Your task to perform on an android device: find which apps use the phone's location Image 0: 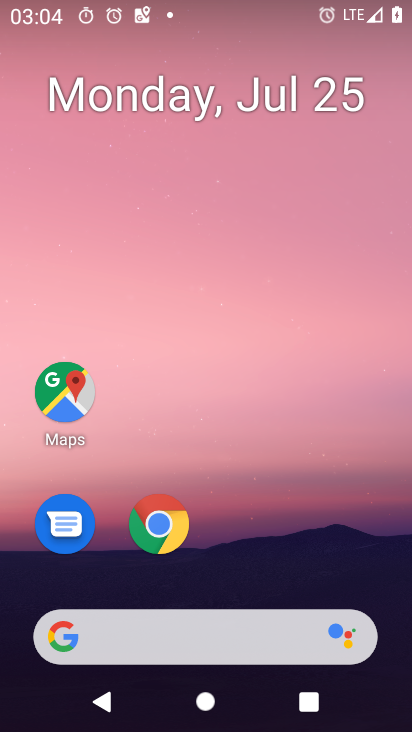
Step 0: press home button
Your task to perform on an android device: find which apps use the phone's location Image 1: 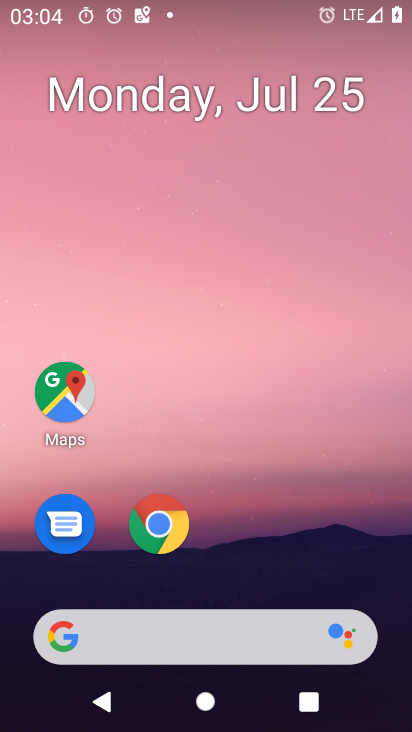
Step 1: drag from (234, 555) to (230, 0)
Your task to perform on an android device: find which apps use the phone's location Image 2: 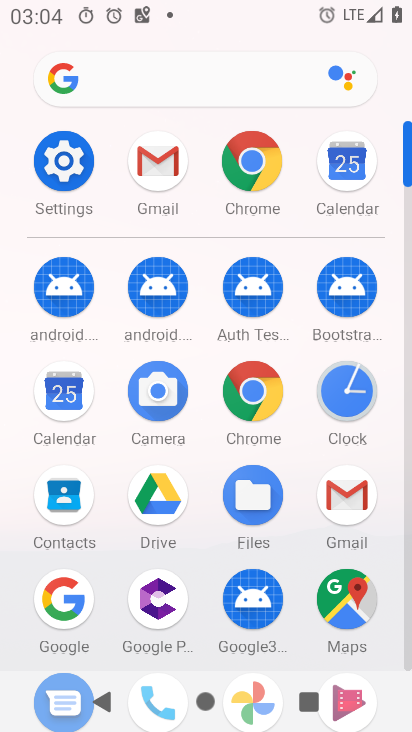
Step 2: click (72, 172)
Your task to perform on an android device: find which apps use the phone's location Image 3: 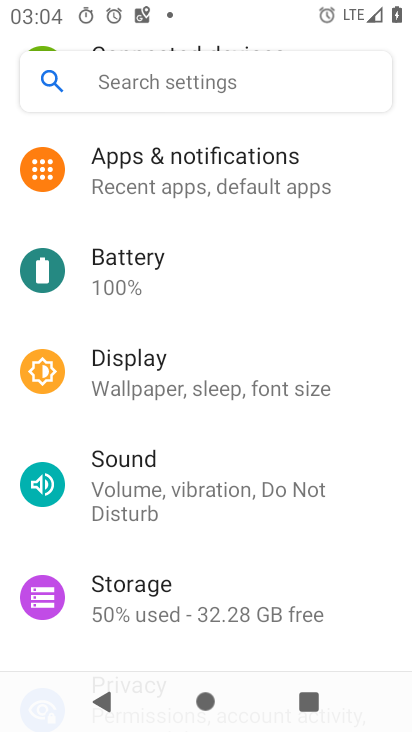
Step 3: drag from (283, 449) to (304, 47)
Your task to perform on an android device: find which apps use the phone's location Image 4: 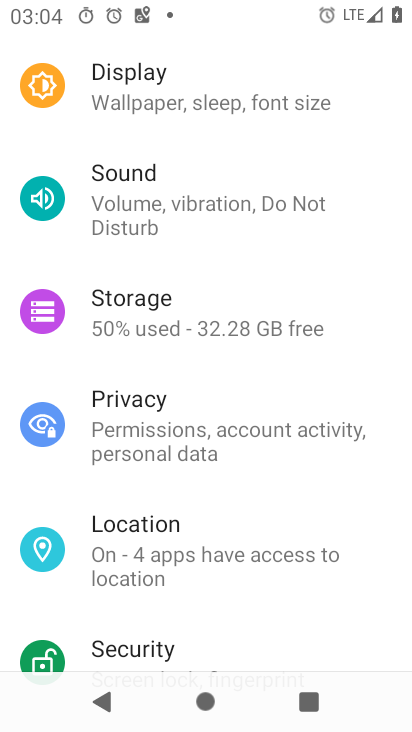
Step 4: click (141, 544)
Your task to perform on an android device: find which apps use the phone's location Image 5: 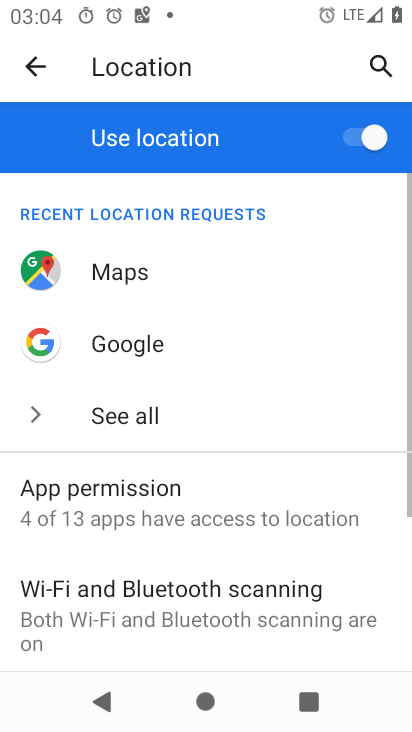
Step 5: click (91, 498)
Your task to perform on an android device: find which apps use the phone's location Image 6: 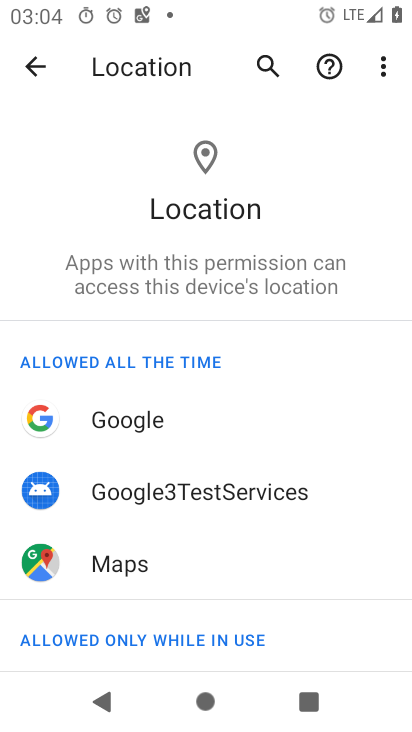
Step 6: task complete